Your task to perform on an android device: Open privacy settings Image 0: 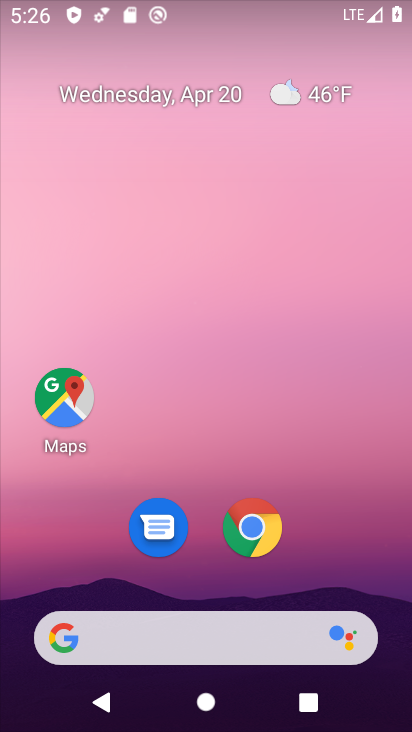
Step 0: drag from (219, 580) to (197, 75)
Your task to perform on an android device: Open privacy settings Image 1: 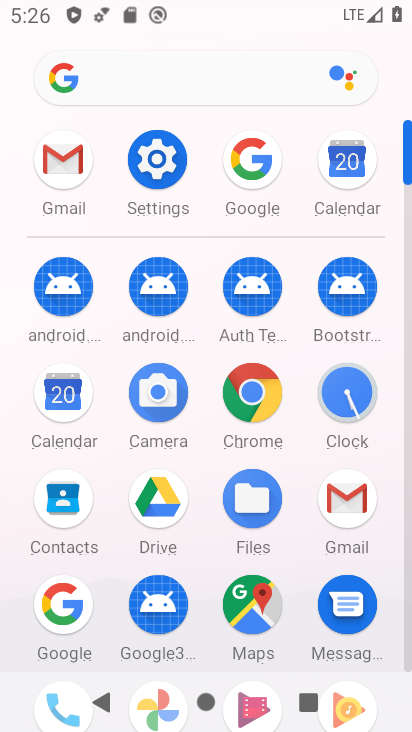
Step 1: click (160, 164)
Your task to perform on an android device: Open privacy settings Image 2: 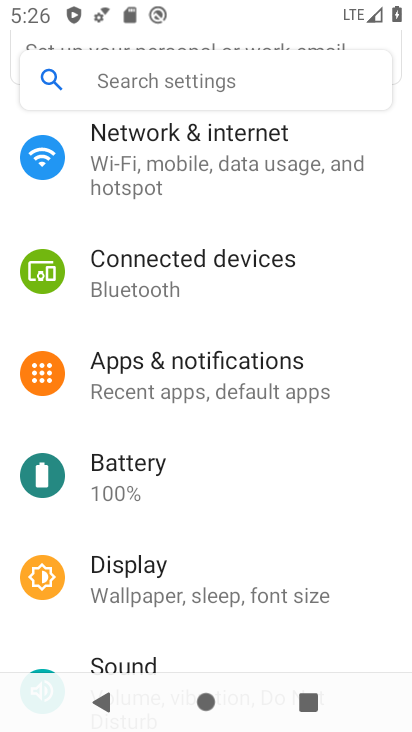
Step 2: drag from (217, 567) to (193, 164)
Your task to perform on an android device: Open privacy settings Image 3: 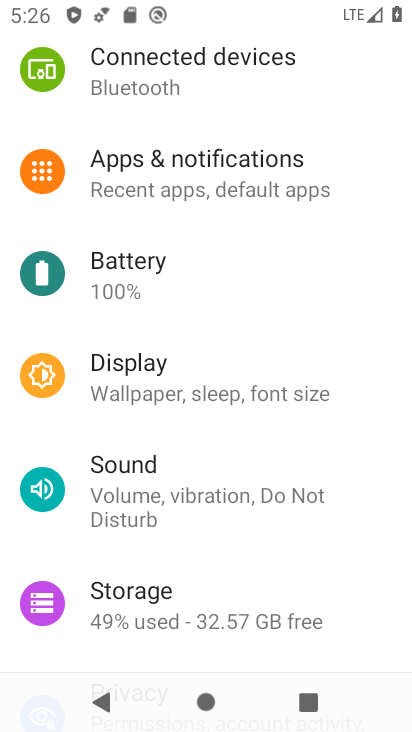
Step 3: drag from (187, 527) to (177, 237)
Your task to perform on an android device: Open privacy settings Image 4: 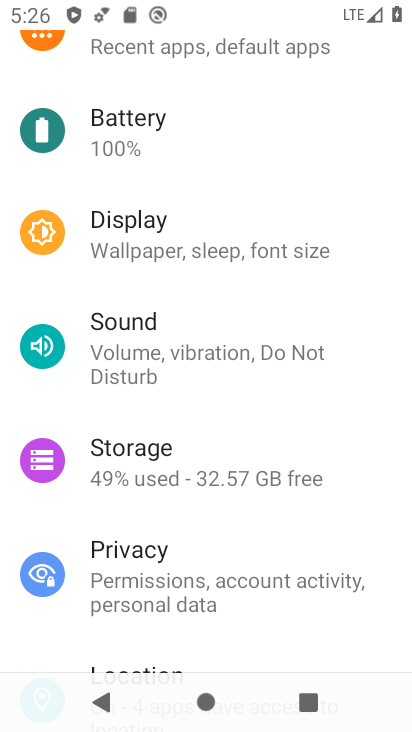
Step 4: click (164, 573)
Your task to perform on an android device: Open privacy settings Image 5: 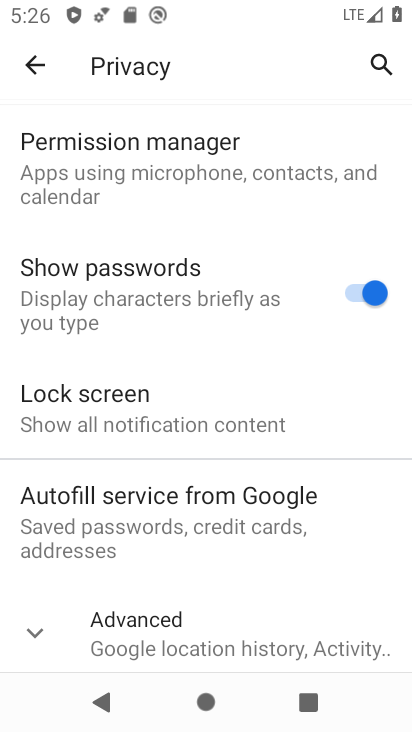
Step 5: task complete